Your task to perform on an android device: check android version Image 0: 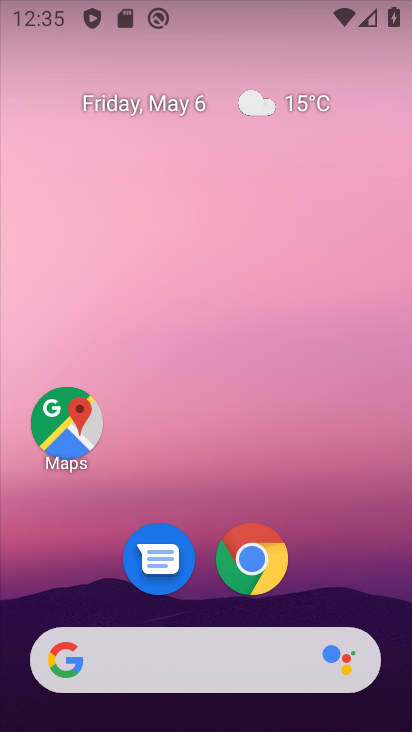
Step 0: drag from (202, 505) to (236, 72)
Your task to perform on an android device: check android version Image 1: 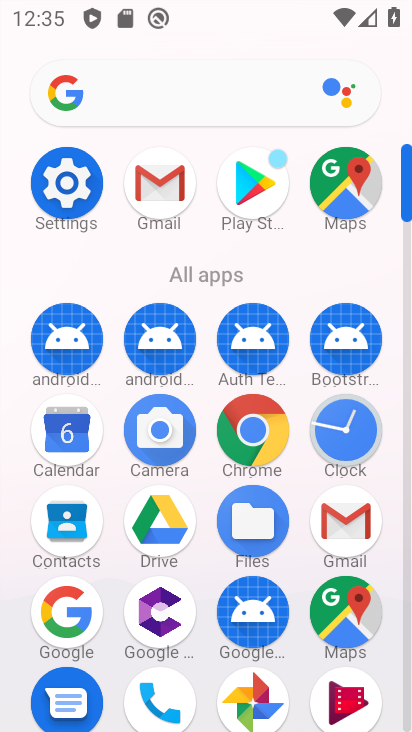
Step 1: click (80, 189)
Your task to perform on an android device: check android version Image 2: 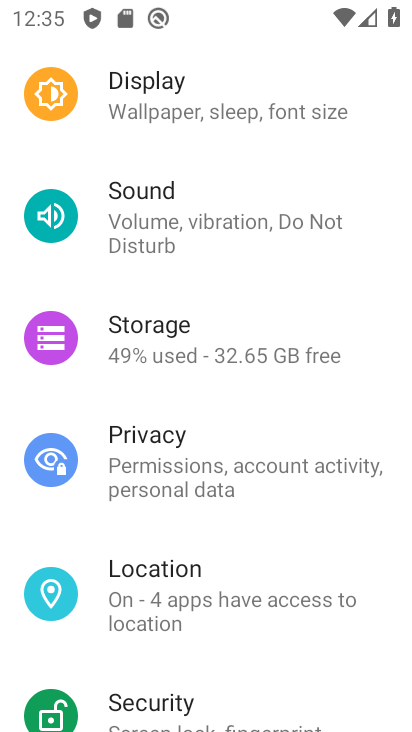
Step 2: drag from (217, 573) to (334, 10)
Your task to perform on an android device: check android version Image 3: 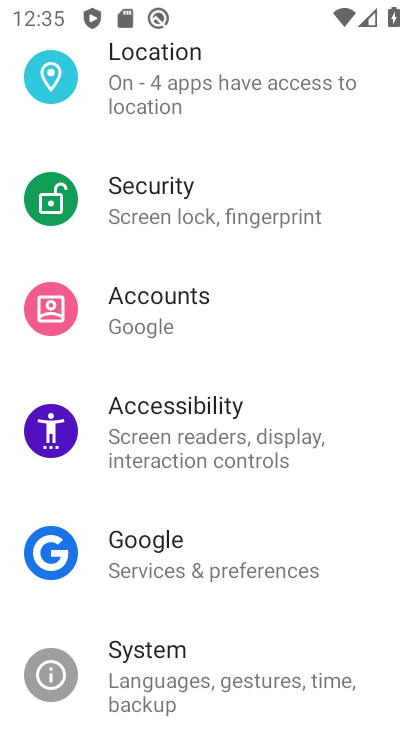
Step 3: drag from (224, 614) to (290, 313)
Your task to perform on an android device: check android version Image 4: 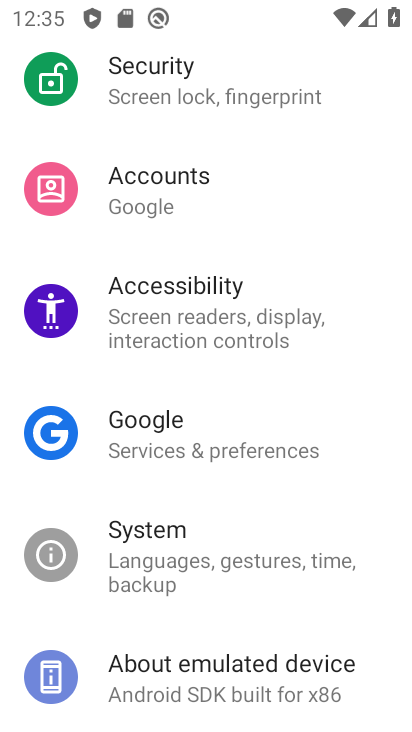
Step 4: click (183, 683)
Your task to perform on an android device: check android version Image 5: 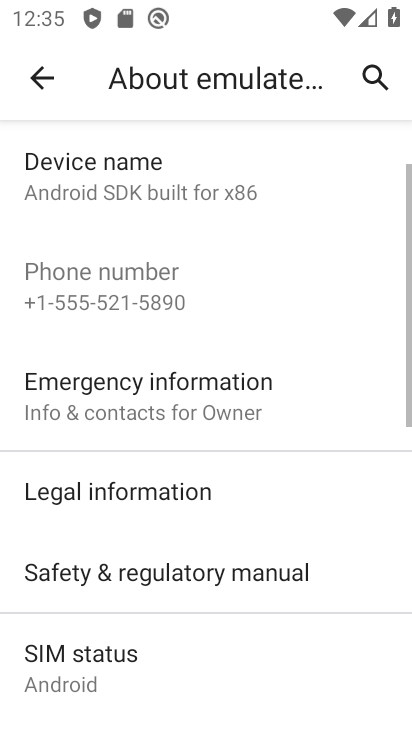
Step 5: drag from (181, 491) to (250, 131)
Your task to perform on an android device: check android version Image 6: 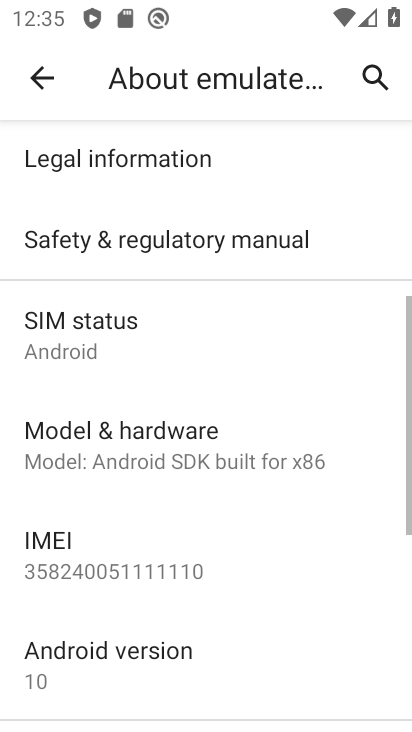
Step 6: click (155, 668)
Your task to perform on an android device: check android version Image 7: 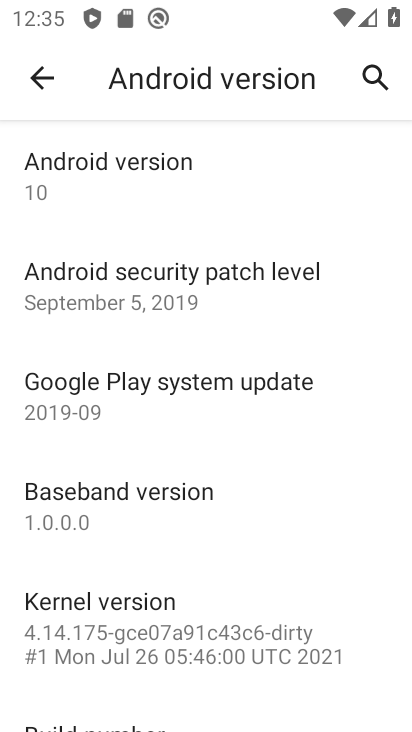
Step 7: click (133, 201)
Your task to perform on an android device: check android version Image 8: 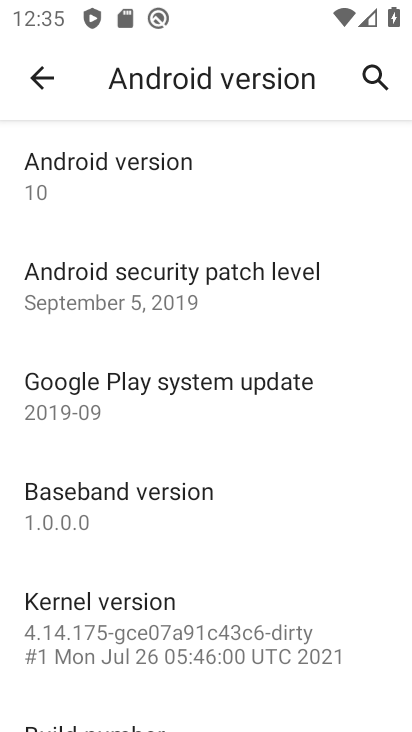
Step 8: task complete